Your task to perform on an android device: turn on data saver in the chrome app Image 0: 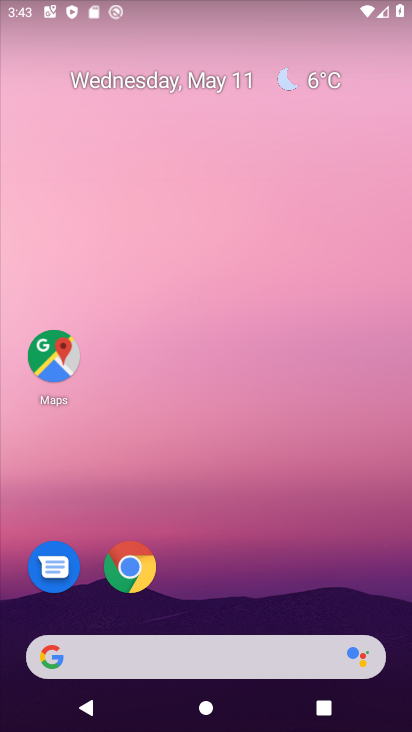
Step 0: click (276, 254)
Your task to perform on an android device: turn on data saver in the chrome app Image 1: 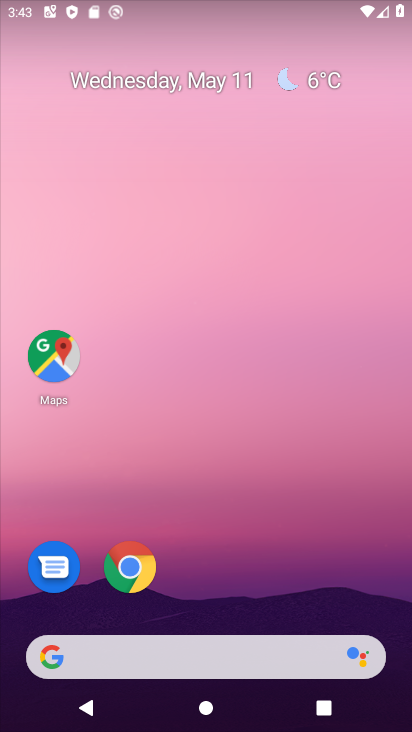
Step 1: drag from (239, 476) to (252, 163)
Your task to perform on an android device: turn on data saver in the chrome app Image 2: 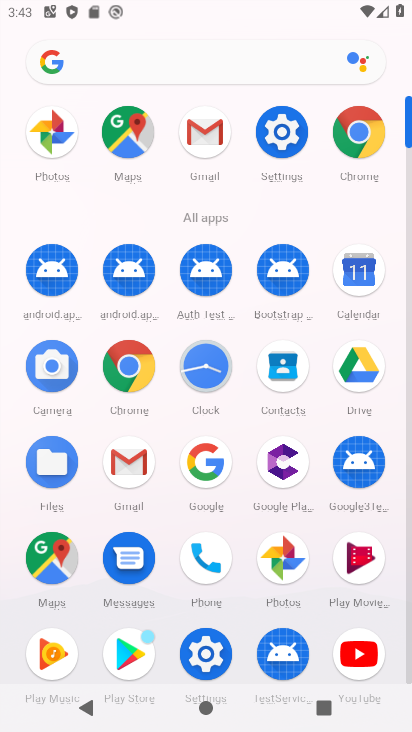
Step 2: click (140, 354)
Your task to perform on an android device: turn on data saver in the chrome app Image 3: 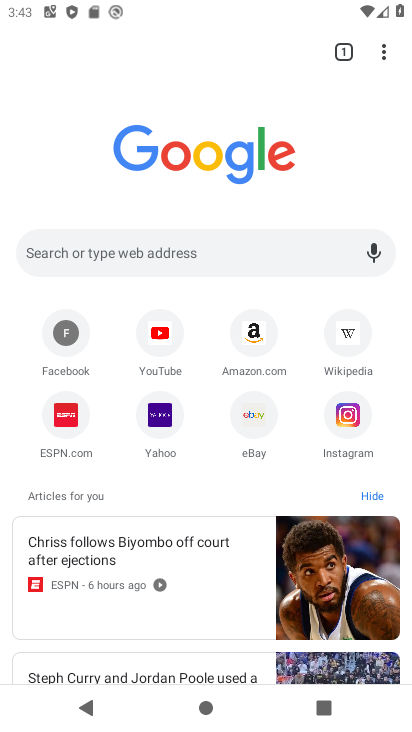
Step 3: click (371, 50)
Your task to perform on an android device: turn on data saver in the chrome app Image 4: 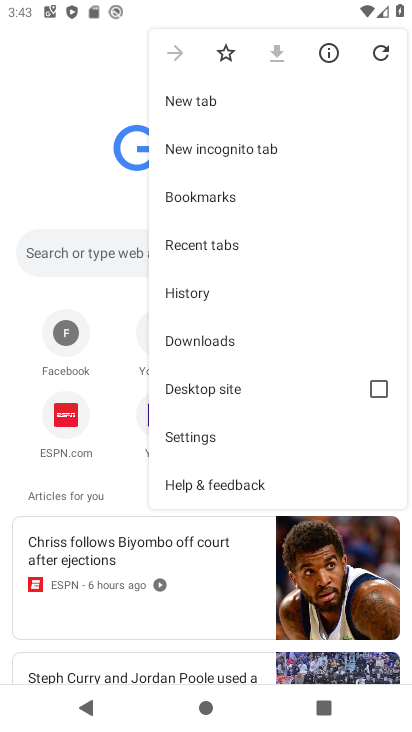
Step 4: click (189, 434)
Your task to perform on an android device: turn on data saver in the chrome app Image 5: 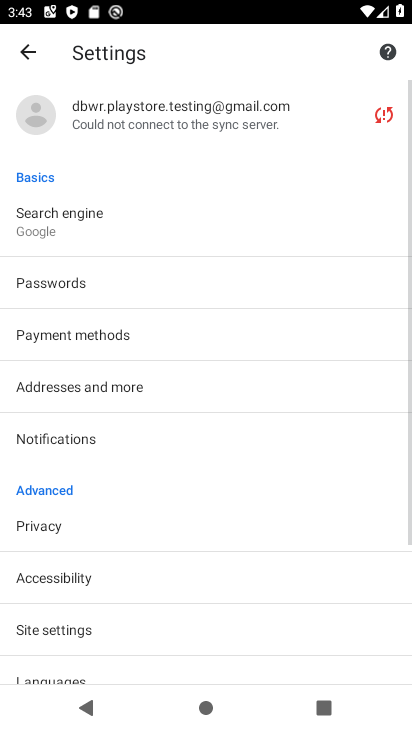
Step 5: drag from (122, 629) to (182, 266)
Your task to perform on an android device: turn on data saver in the chrome app Image 6: 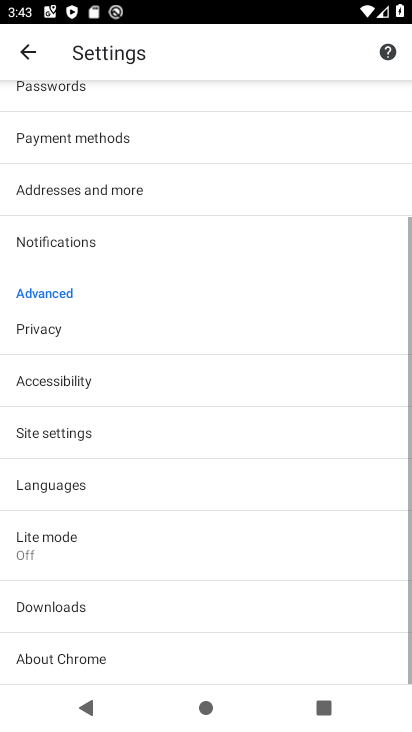
Step 6: click (67, 553)
Your task to perform on an android device: turn on data saver in the chrome app Image 7: 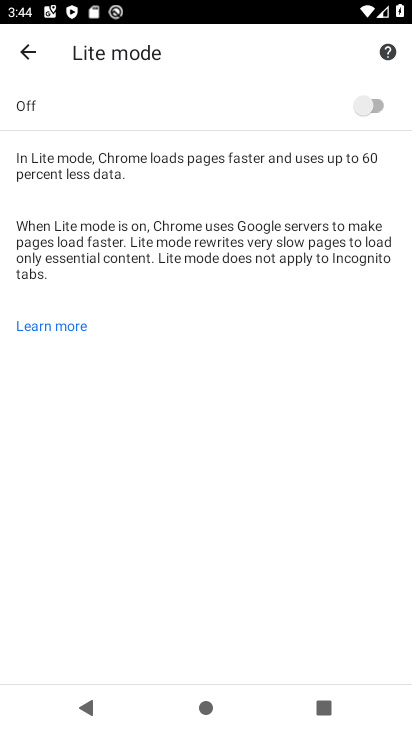
Step 7: click (373, 97)
Your task to perform on an android device: turn on data saver in the chrome app Image 8: 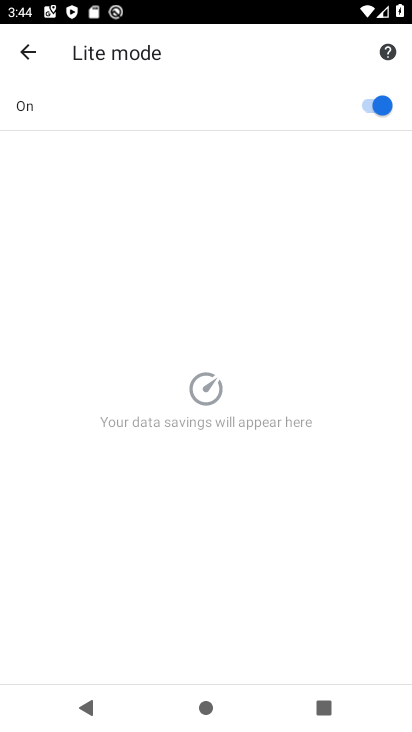
Step 8: task complete